Your task to perform on an android device: Open the phone app and click the voicemail tab. Image 0: 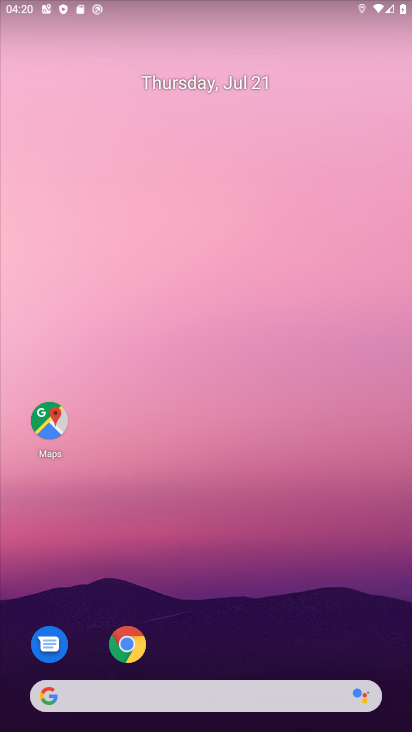
Step 0: drag from (309, 619) to (300, 33)
Your task to perform on an android device: Open the phone app and click the voicemail tab. Image 1: 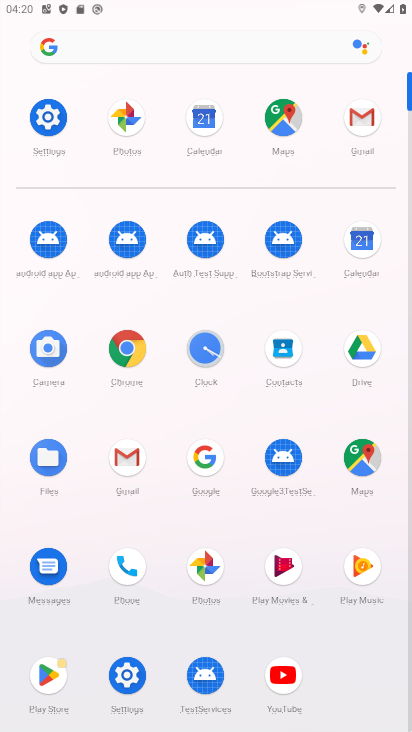
Step 1: click (122, 571)
Your task to perform on an android device: Open the phone app and click the voicemail tab. Image 2: 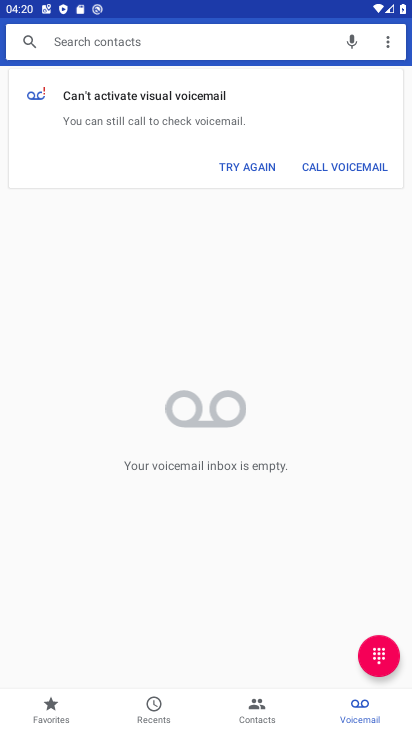
Step 2: task complete